Your task to perform on an android device: toggle notification dots Image 0: 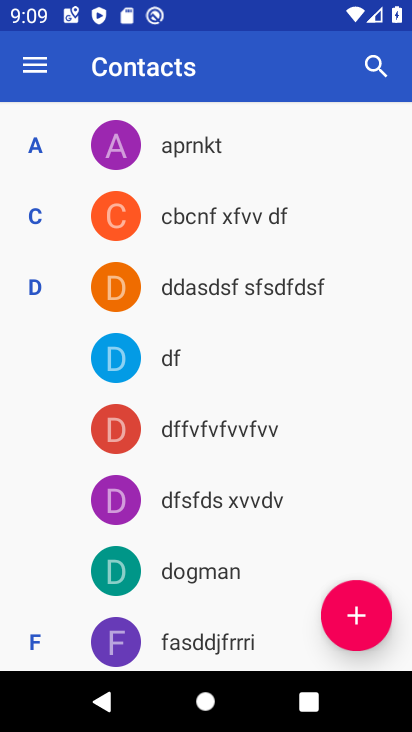
Step 0: press home button
Your task to perform on an android device: toggle notification dots Image 1: 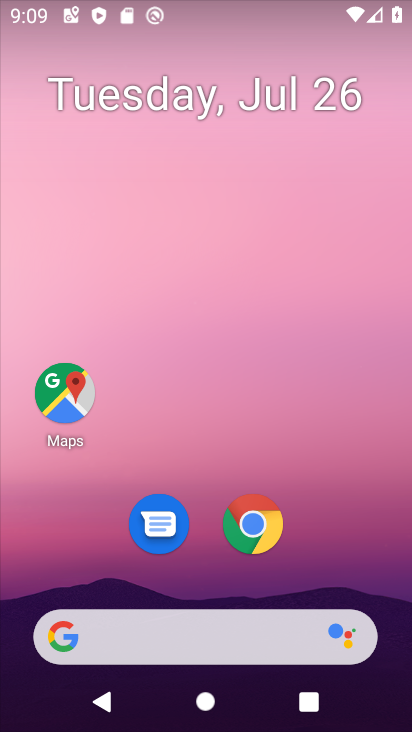
Step 1: drag from (193, 635) to (369, 43)
Your task to perform on an android device: toggle notification dots Image 2: 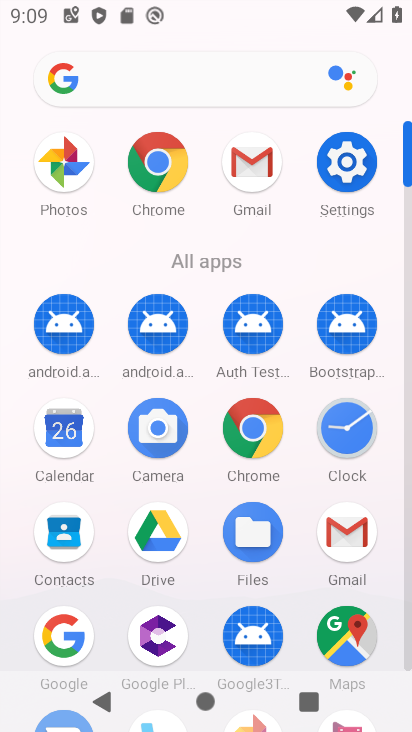
Step 2: click (335, 165)
Your task to perform on an android device: toggle notification dots Image 3: 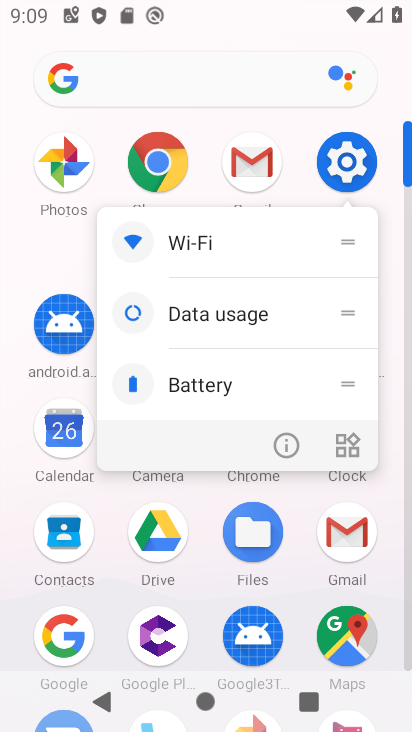
Step 3: click (342, 172)
Your task to perform on an android device: toggle notification dots Image 4: 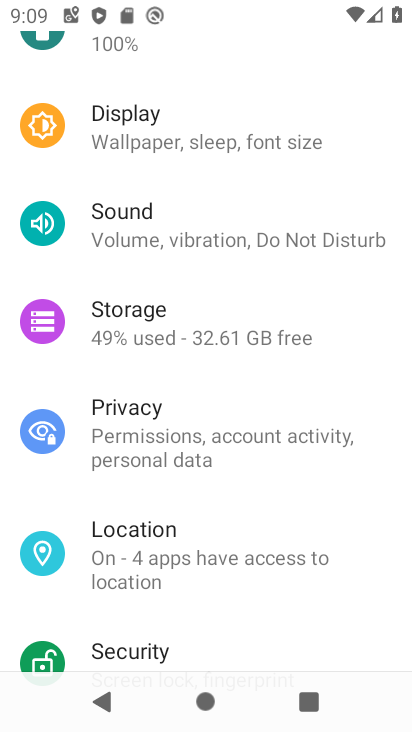
Step 4: drag from (351, 96) to (210, 553)
Your task to perform on an android device: toggle notification dots Image 5: 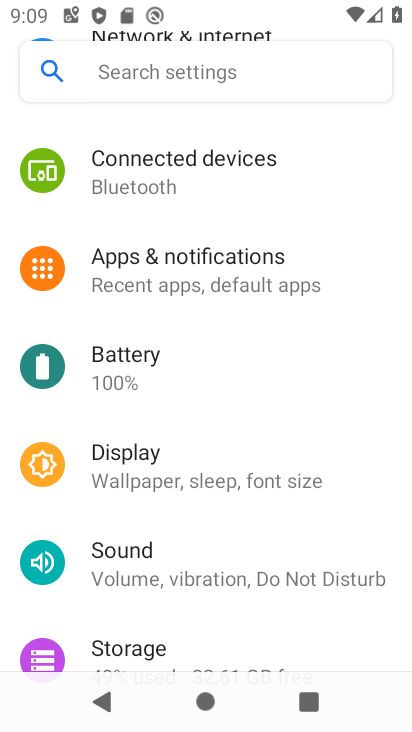
Step 5: click (222, 260)
Your task to perform on an android device: toggle notification dots Image 6: 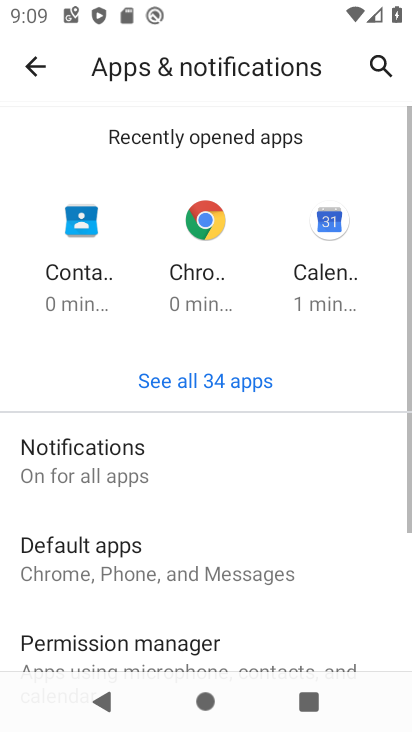
Step 6: click (119, 463)
Your task to perform on an android device: toggle notification dots Image 7: 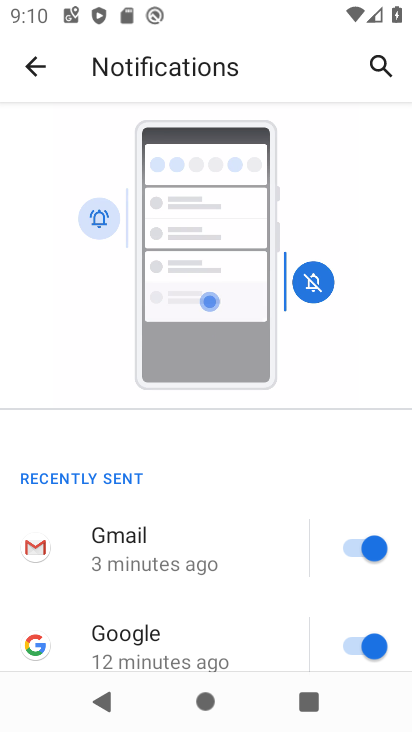
Step 7: drag from (205, 628) to (411, 49)
Your task to perform on an android device: toggle notification dots Image 8: 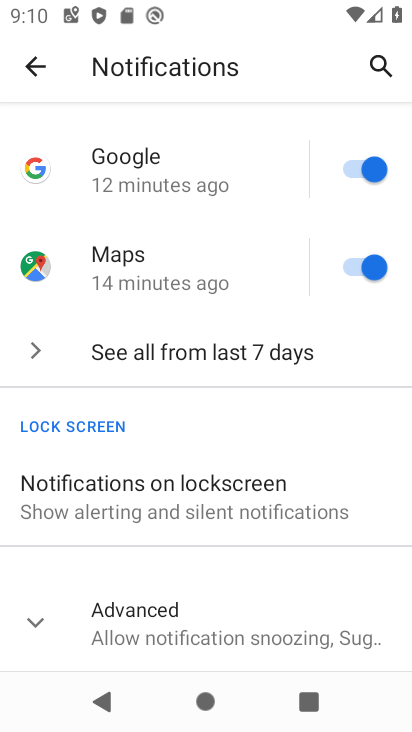
Step 8: click (159, 623)
Your task to perform on an android device: toggle notification dots Image 9: 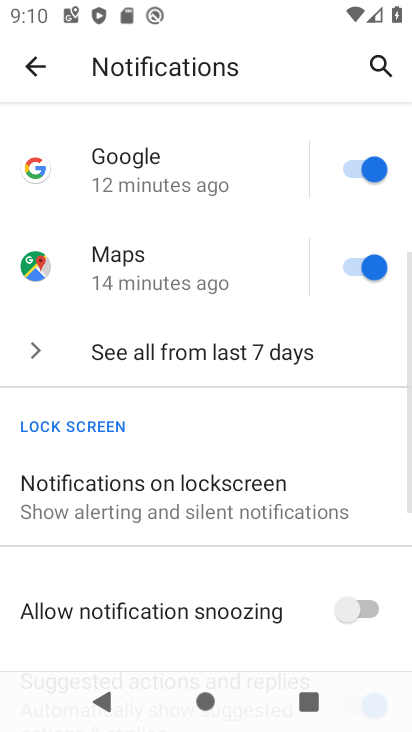
Step 9: drag from (205, 599) to (359, 97)
Your task to perform on an android device: toggle notification dots Image 10: 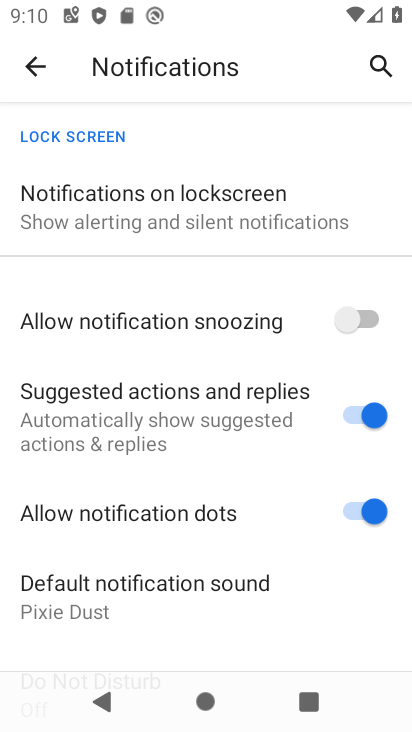
Step 10: click (347, 512)
Your task to perform on an android device: toggle notification dots Image 11: 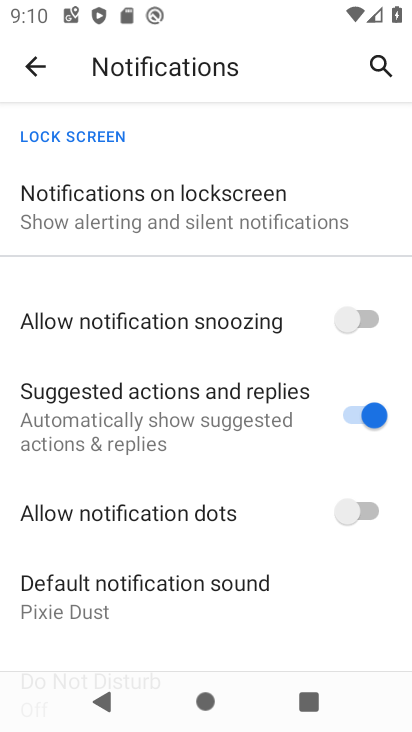
Step 11: task complete